Your task to perform on an android device: Open the web browser Image 0: 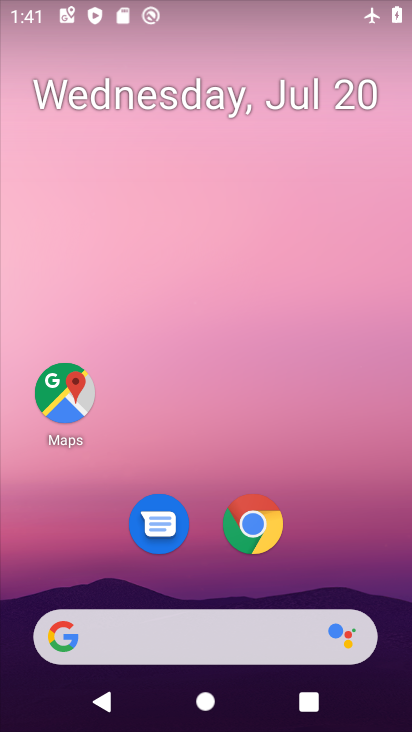
Step 0: click (218, 631)
Your task to perform on an android device: Open the web browser Image 1: 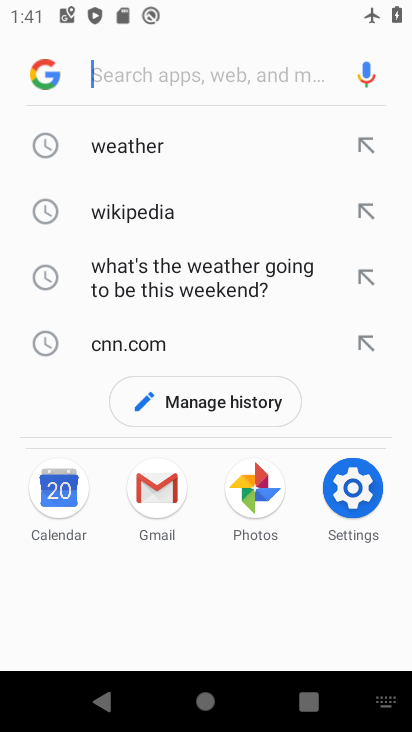
Step 1: task complete